Your task to perform on an android device: Open Wikipedia Image 0: 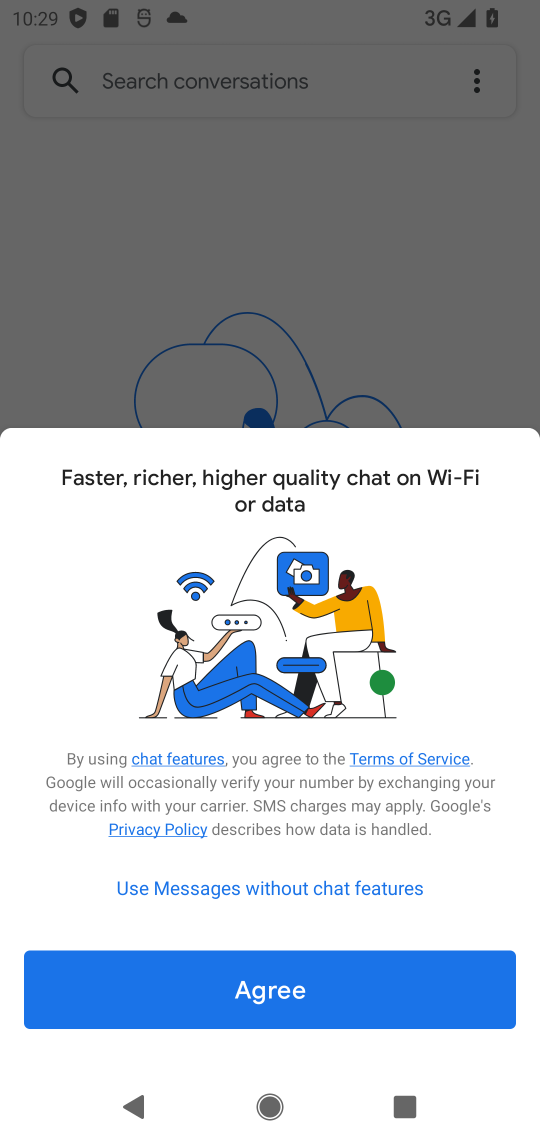
Step 0: press home button
Your task to perform on an android device: Open Wikipedia Image 1: 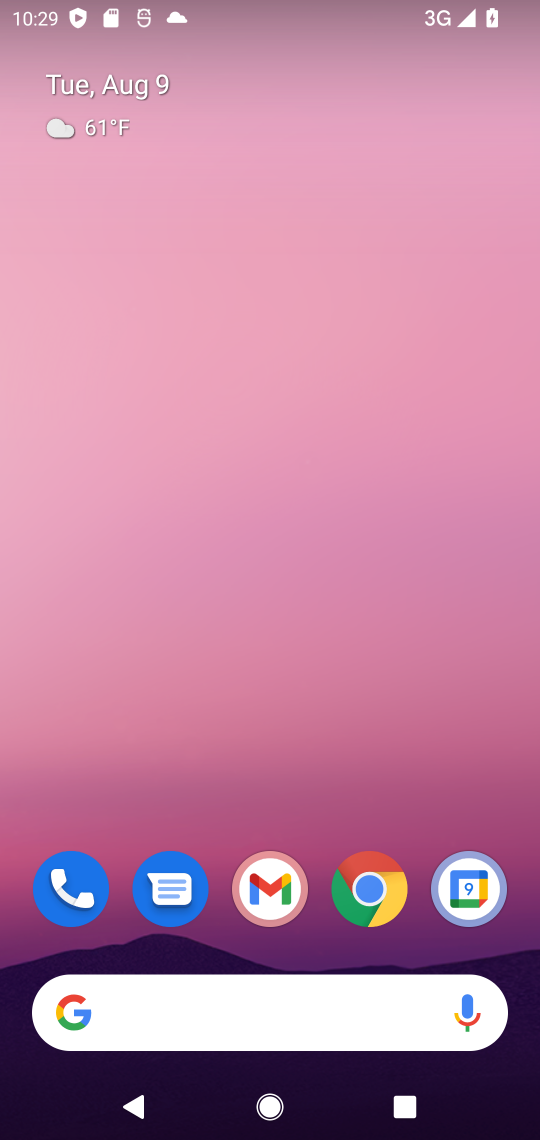
Step 1: drag from (364, 412) to (383, 7)
Your task to perform on an android device: Open Wikipedia Image 2: 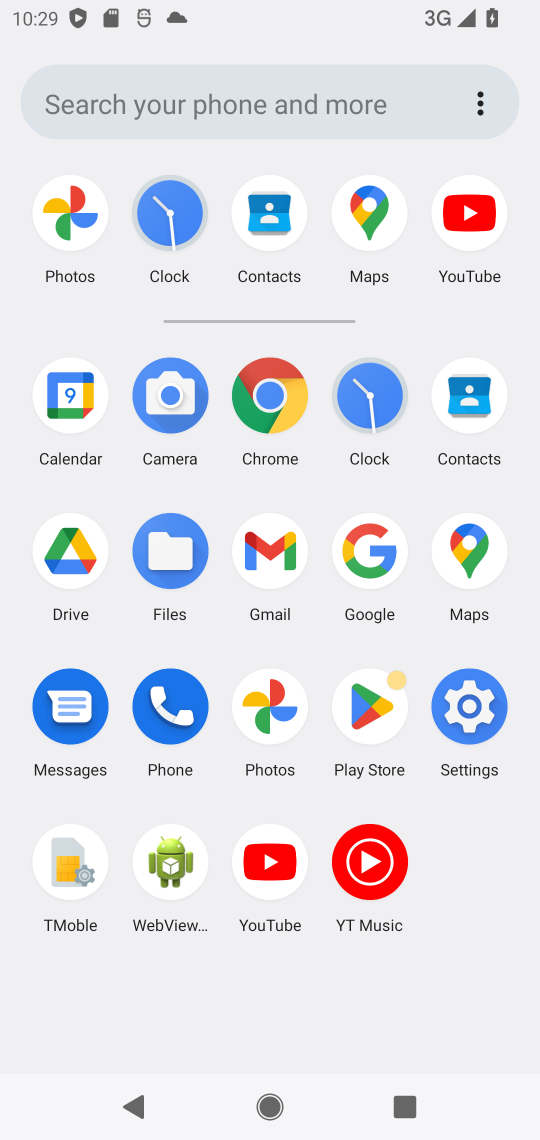
Step 2: click (291, 425)
Your task to perform on an android device: Open Wikipedia Image 3: 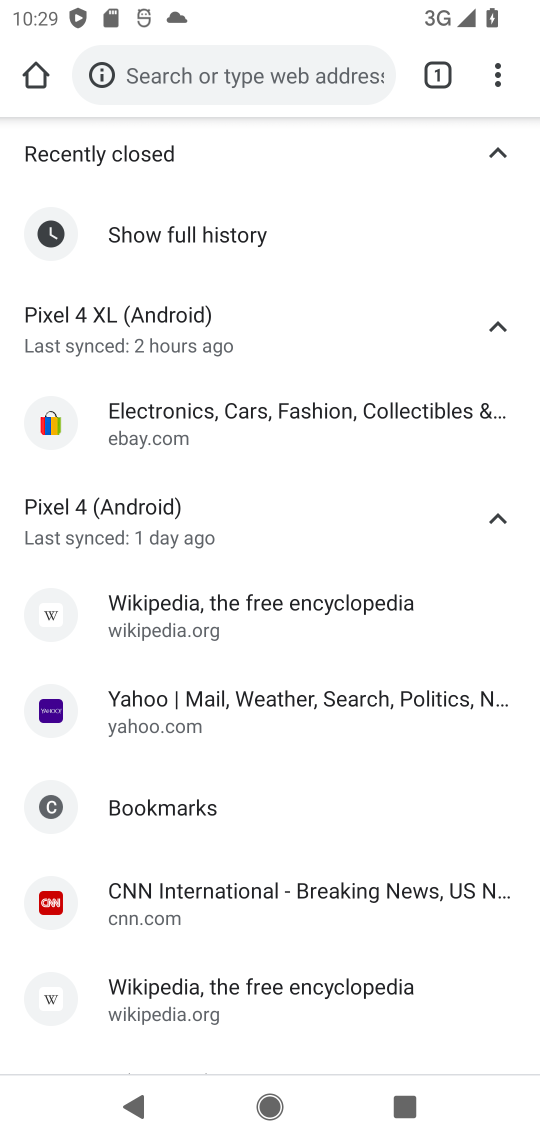
Step 3: click (217, 98)
Your task to perform on an android device: Open Wikipedia Image 4: 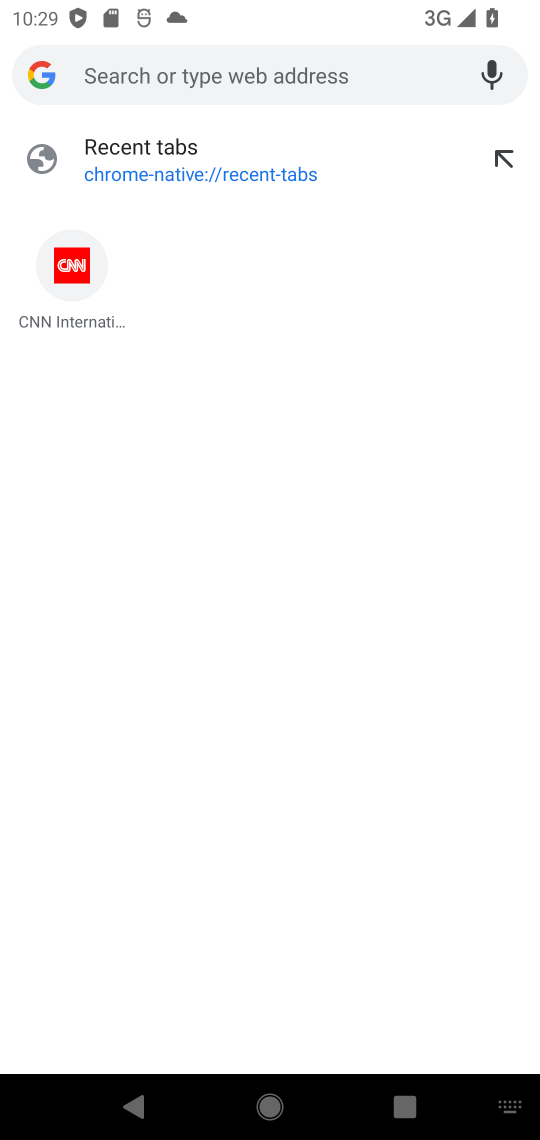
Step 4: type "Wikipedia"
Your task to perform on an android device: Open Wikipedia Image 5: 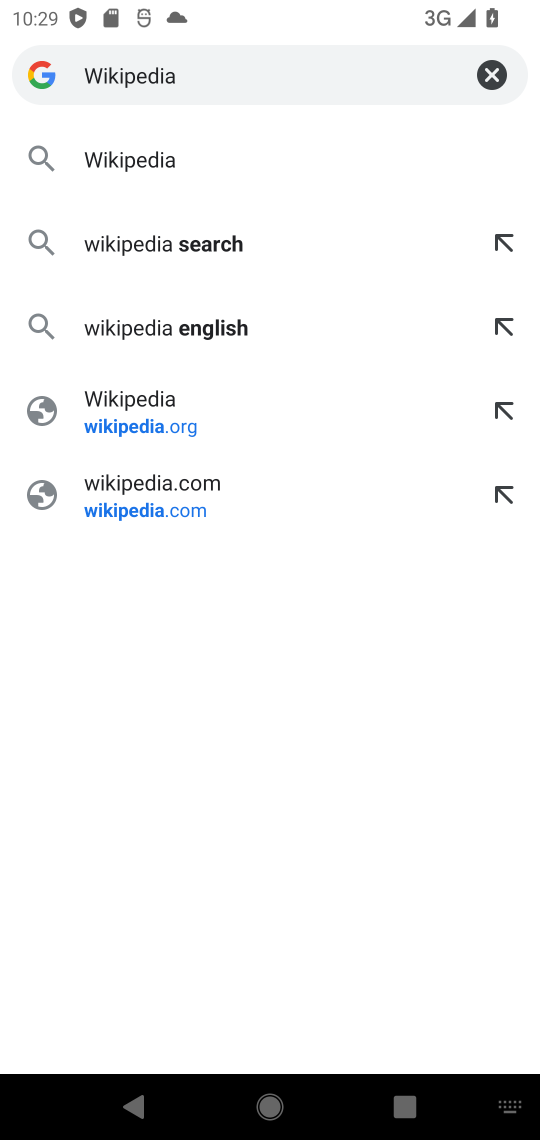
Step 5: click (153, 169)
Your task to perform on an android device: Open Wikipedia Image 6: 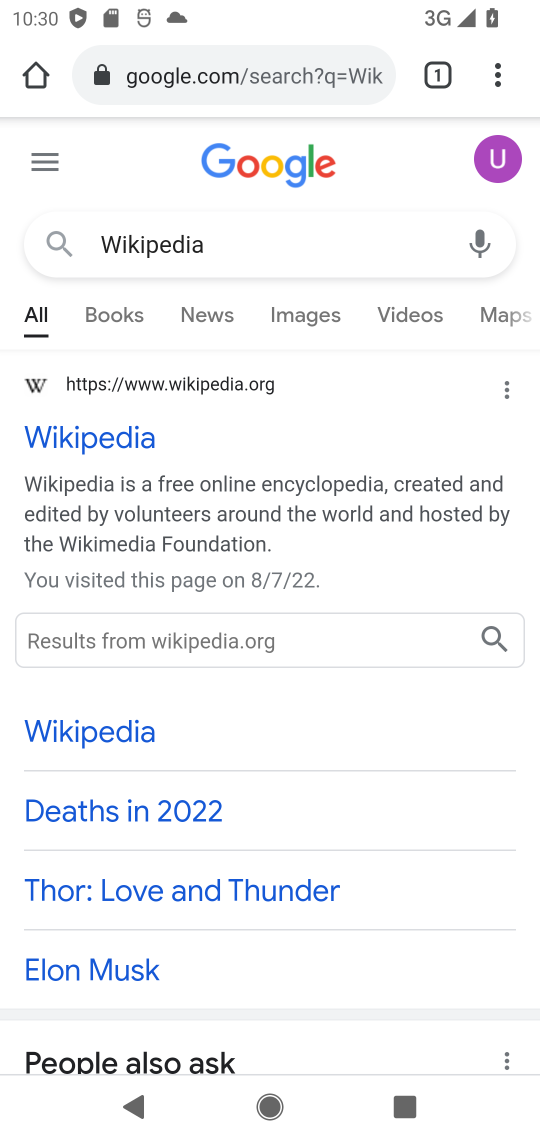
Step 6: click (78, 434)
Your task to perform on an android device: Open Wikipedia Image 7: 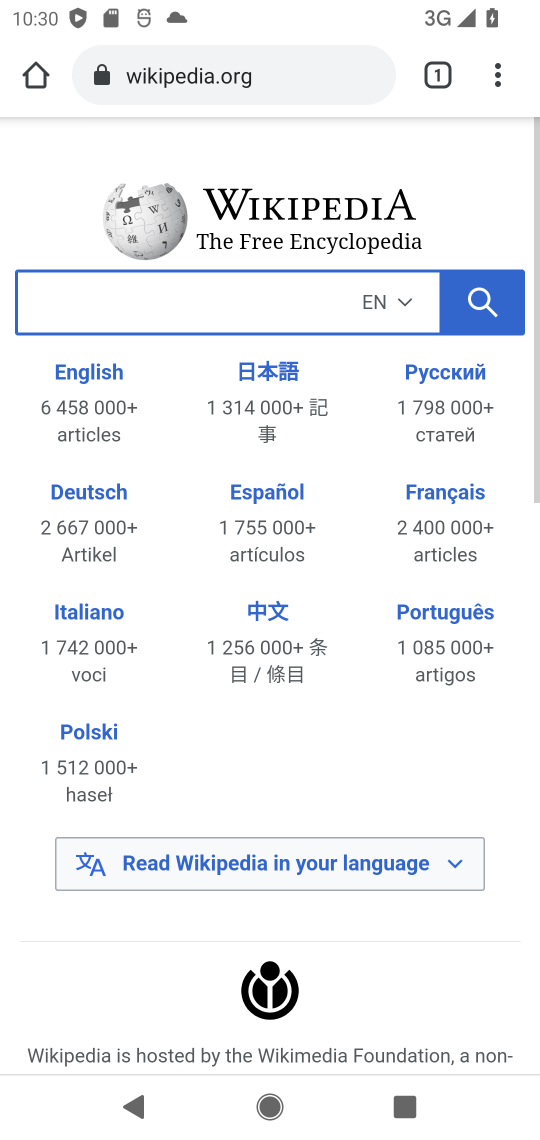
Step 7: task complete